Your task to perform on an android device: change text size in settings app Image 0: 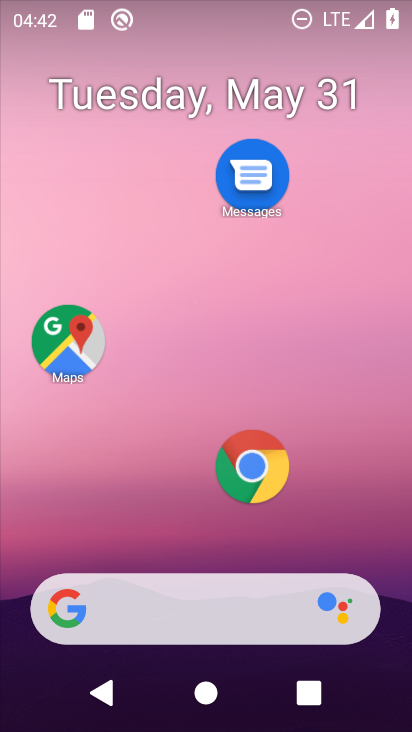
Step 0: drag from (144, 530) to (153, 65)
Your task to perform on an android device: change text size in settings app Image 1: 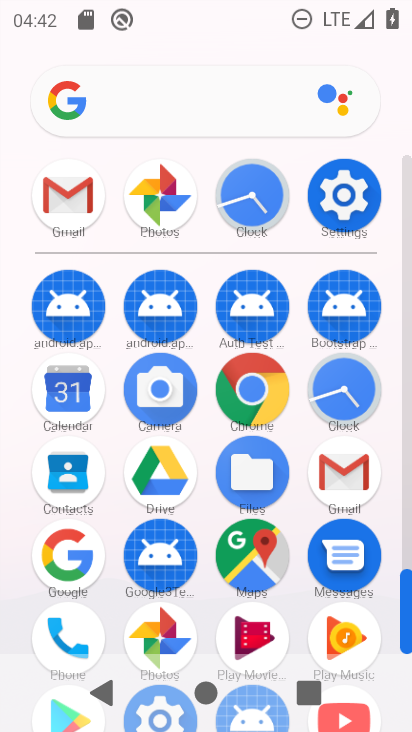
Step 1: click (349, 189)
Your task to perform on an android device: change text size in settings app Image 2: 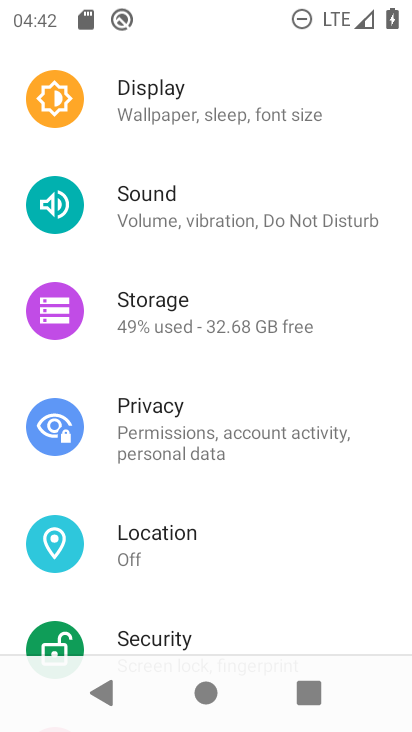
Step 2: drag from (210, 171) to (169, 656)
Your task to perform on an android device: change text size in settings app Image 3: 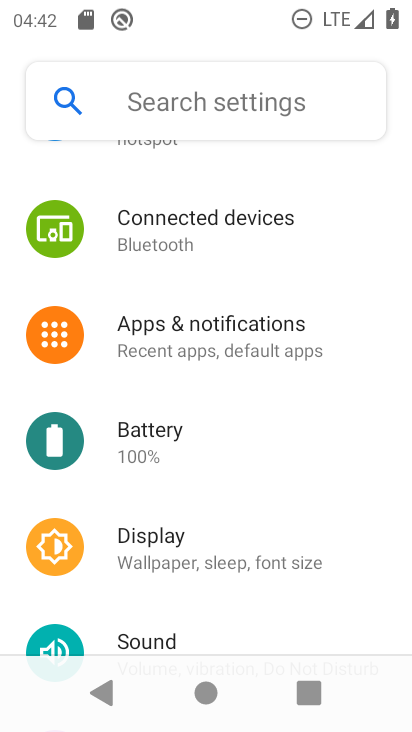
Step 3: click (189, 107)
Your task to perform on an android device: change text size in settings app Image 4: 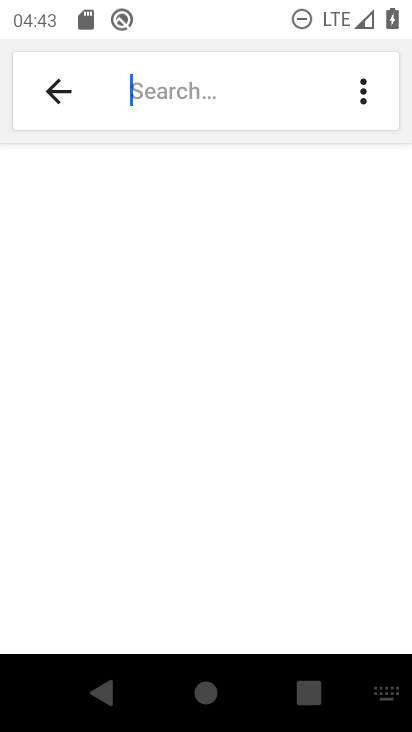
Step 4: type "text size"
Your task to perform on an android device: change text size in settings app Image 5: 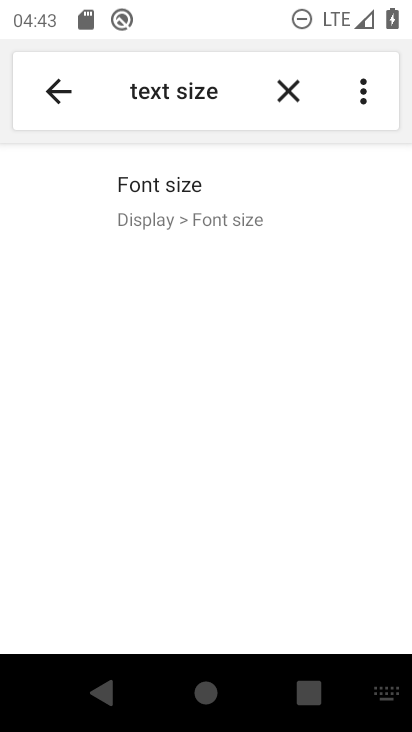
Step 5: click (202, 187)
Your task to perform on an android device: change text size in settings app Image 6: 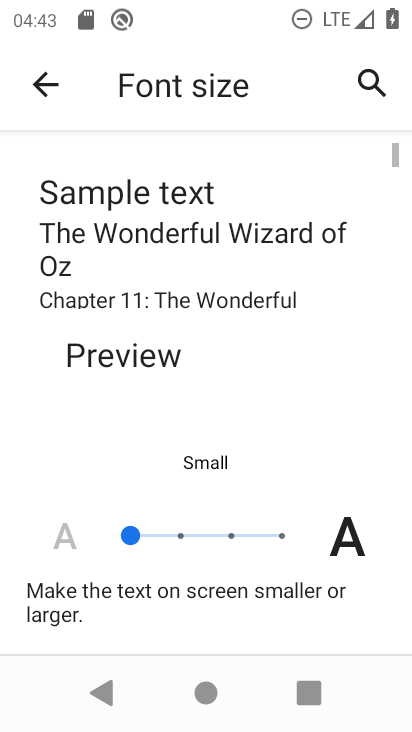
Step 6: task complete